Your task to perform on an android device: What's the weather? Image 0: 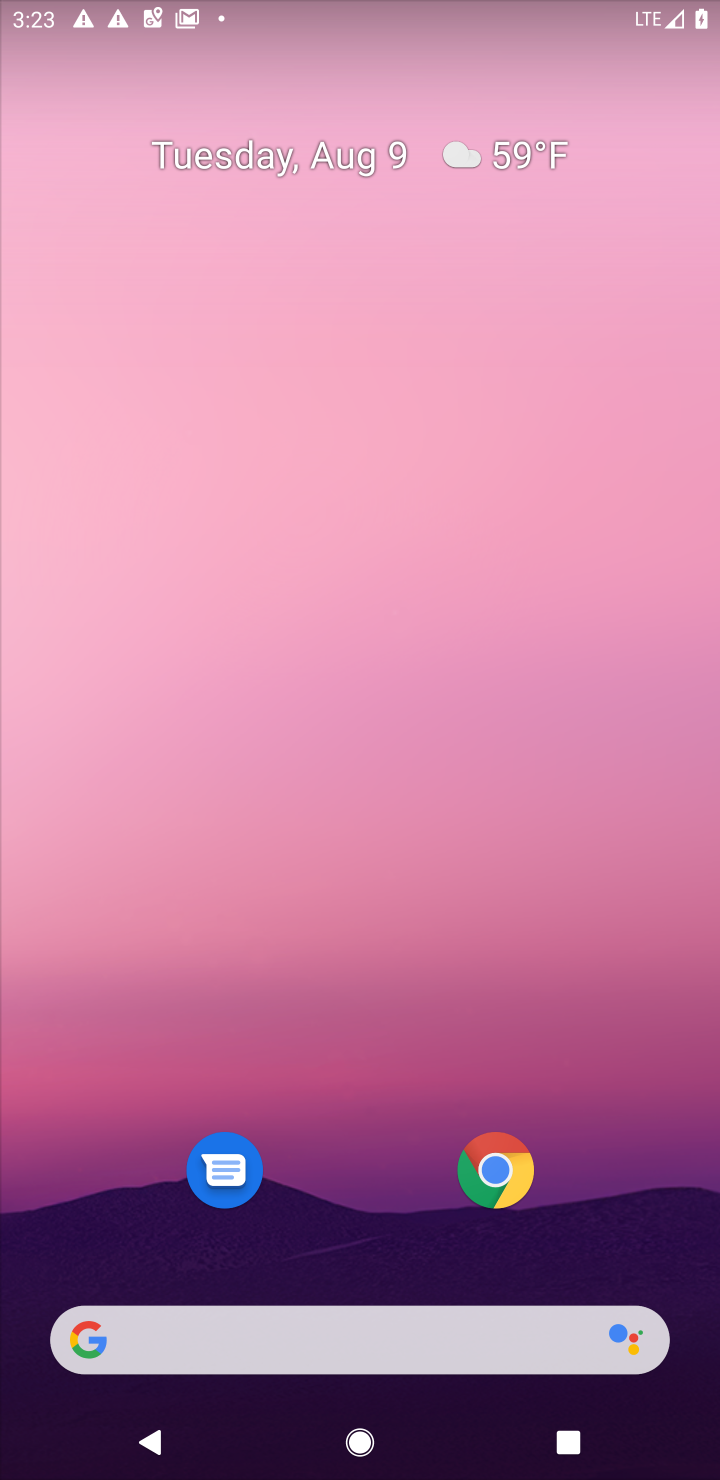
Step 0: press home button
Your task to perform on an android device: What's the weather? Image 1: 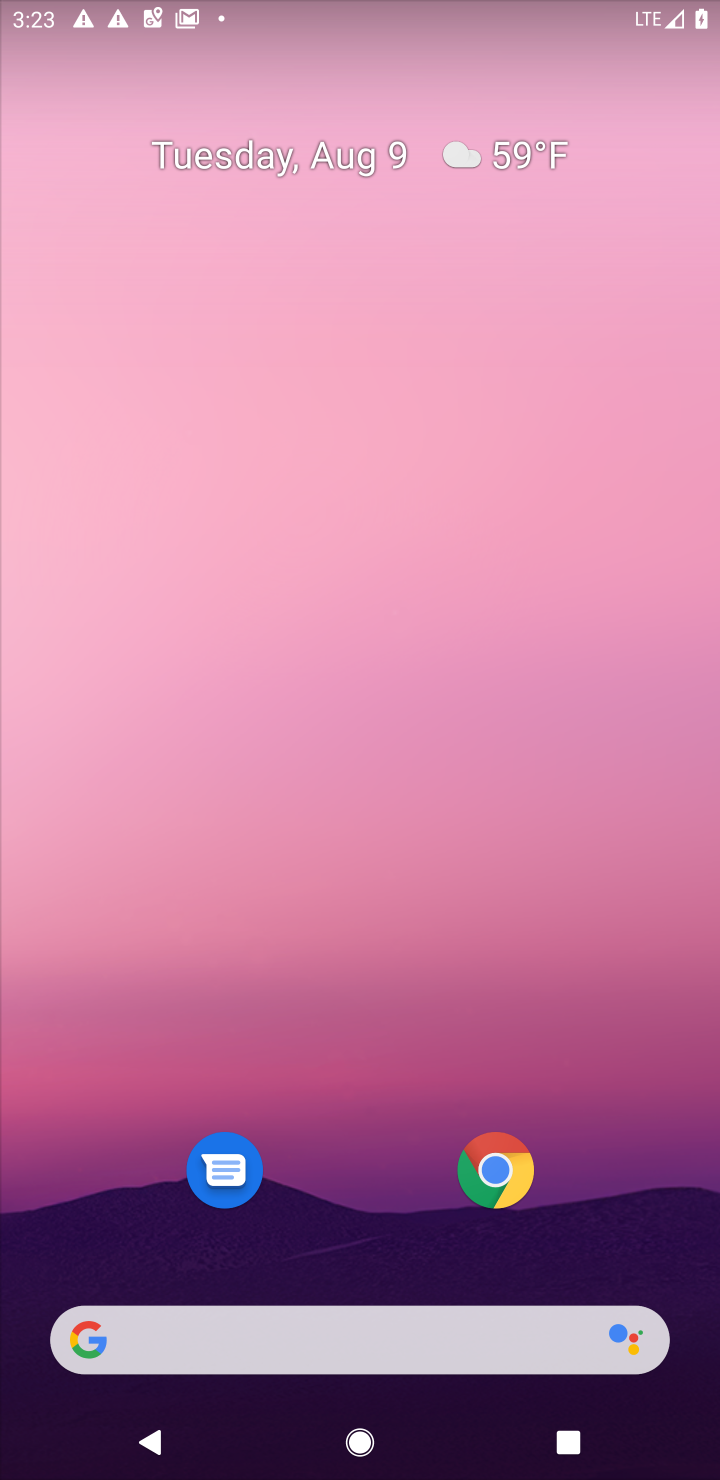
Step 1: click (92, 1339)
Your task to perform on an android device: What's the weather? Image 2: 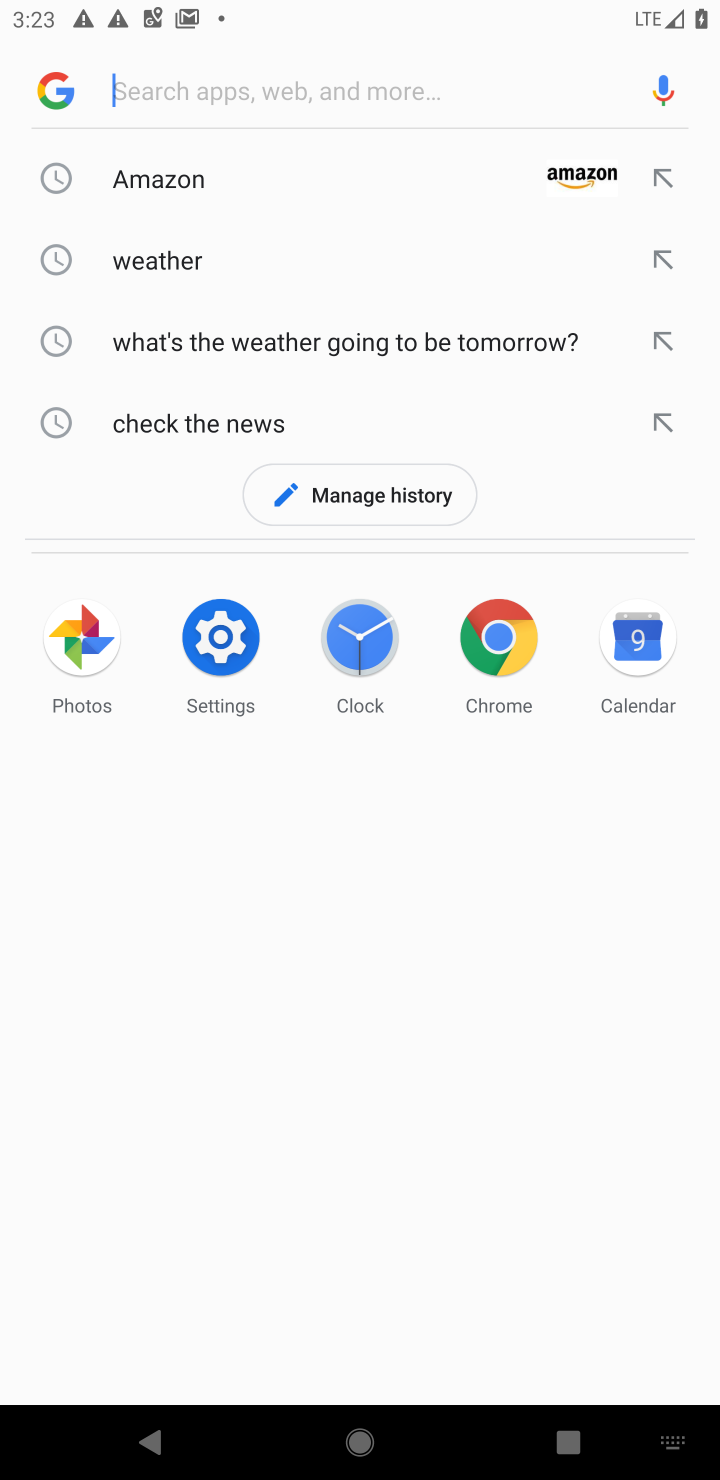
Step 2: type "weather"
Your task to perform on an android device: What's the weather? Image 3: 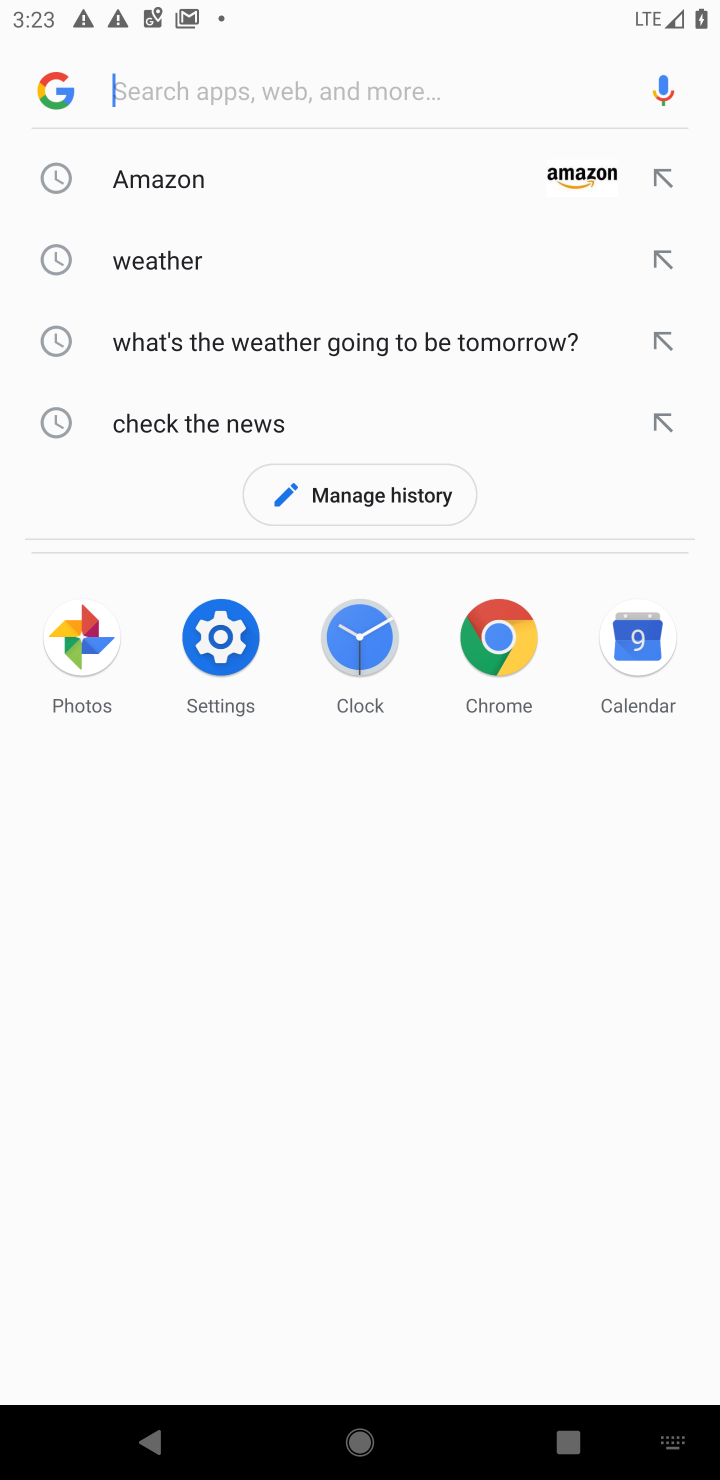
Step 3: click (169, 96)
Your task to perform on an android device: What's the weather? Image 4: 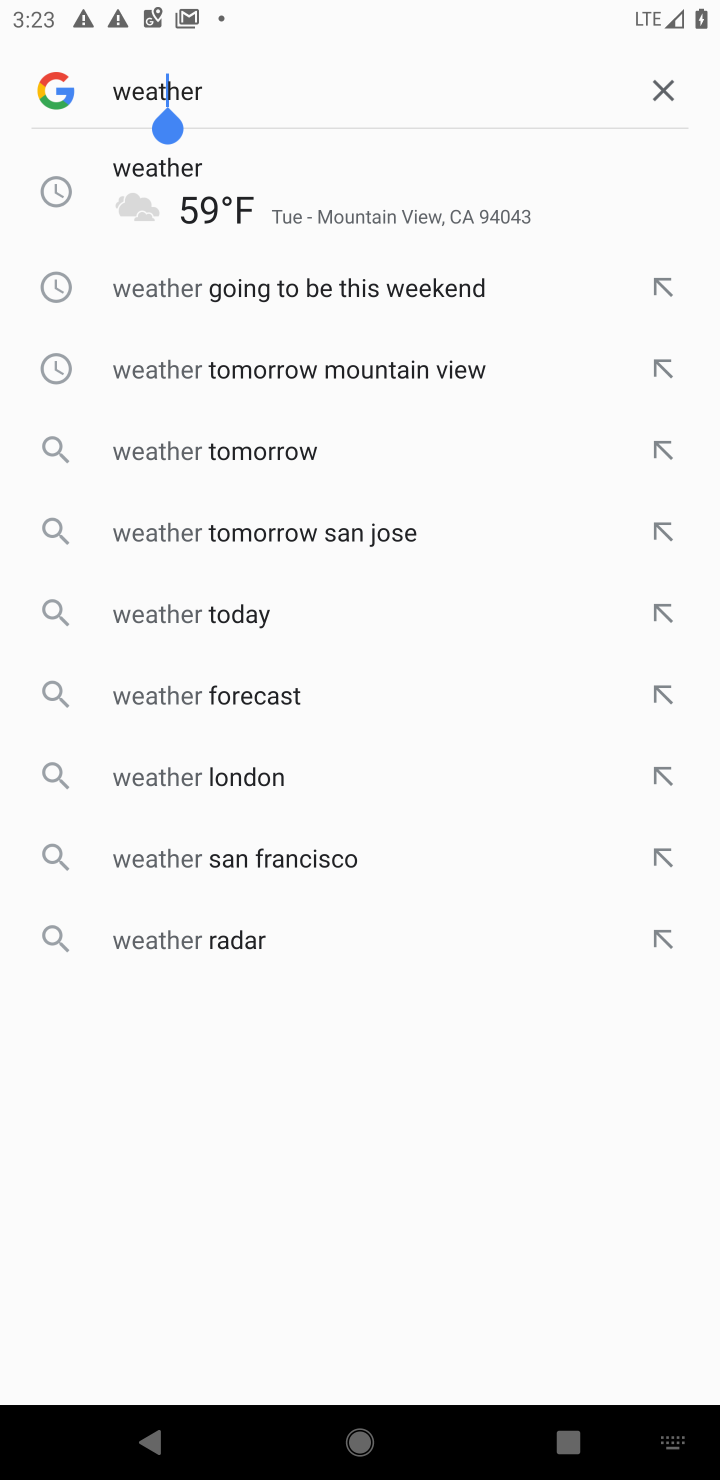
Step 4: click (144, 170)
Your task to perform on an android device: What's the weather? Image 5: 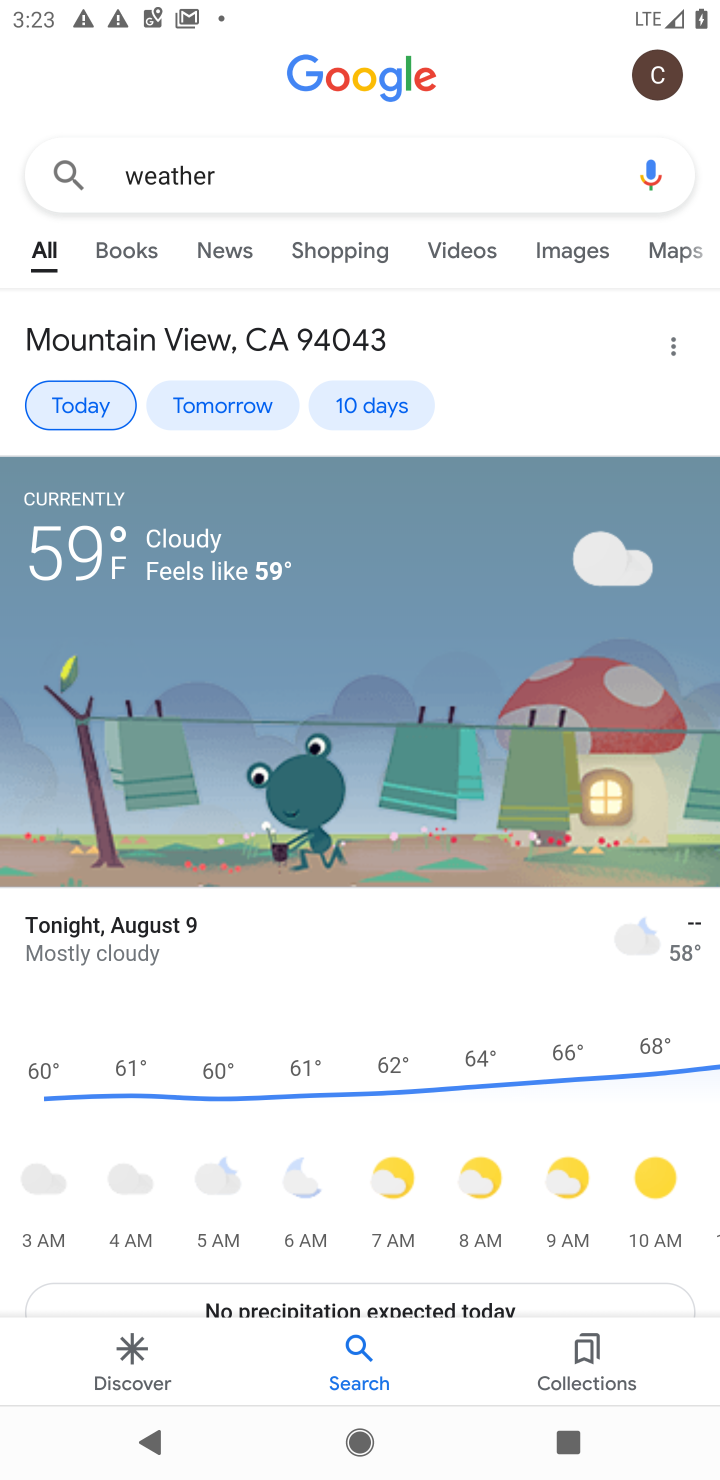
Step 5: task complete